Your task to perform on an android device: open sync settings in chrome Image 0: 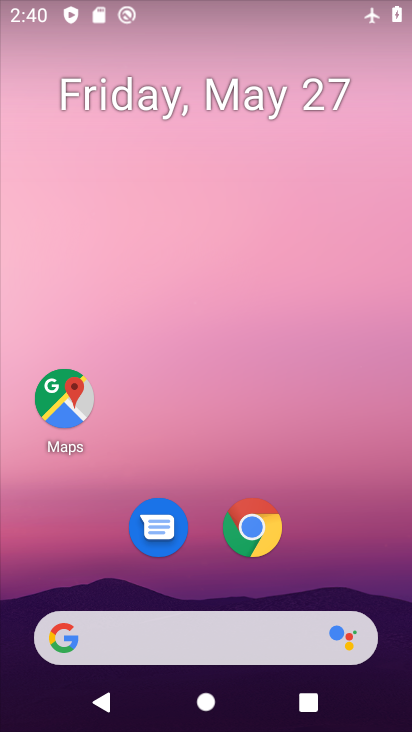
Step 0: click (241, 527)
Your task to perform on an android device: open sync settings in chrome Image 1: 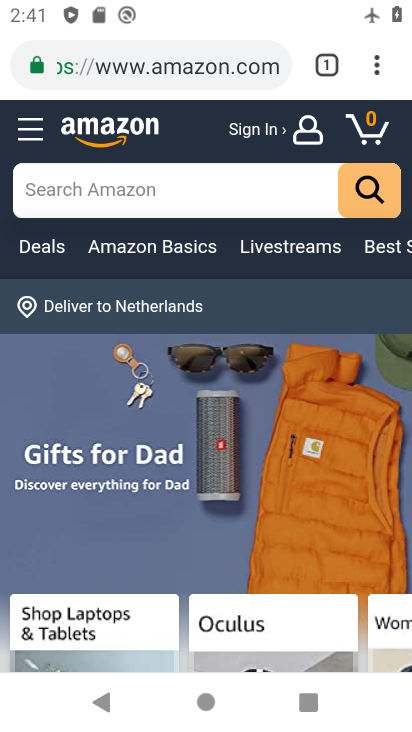
Step 1: click (372, 62)
Your task to perform on an android device: open sync settings in chrome Image 2: 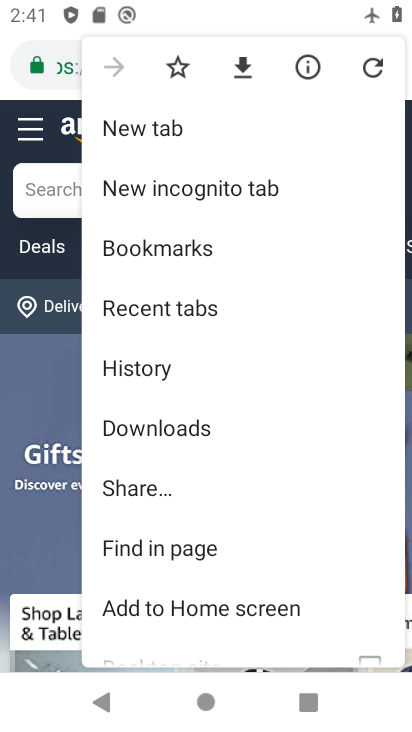
Step 2: drag from (229, 596) to (299, 55)
Your task to perform on an android device: open sync settings in chrome Image 3: 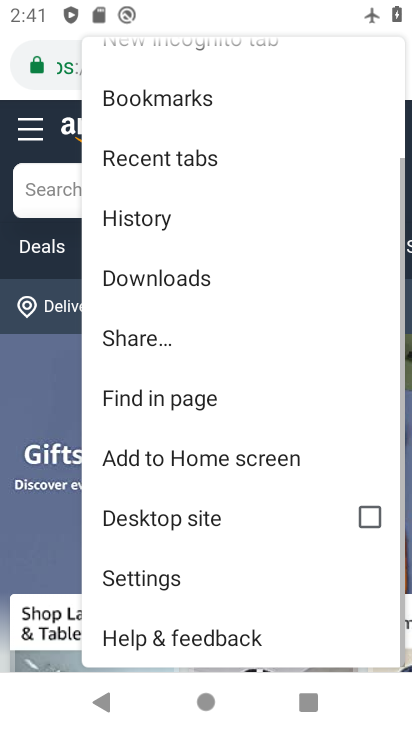
Step 3: click (203, 584)
Your task to perform on an android device: open sync settings in chrome Image 4: 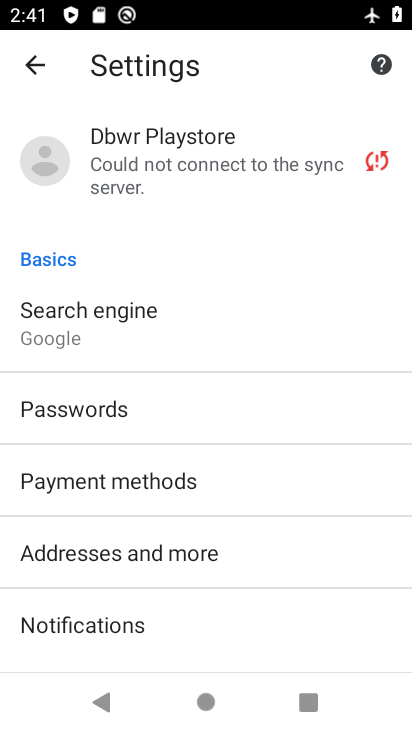
Step 4: click (240, 159)
Your task to perform on an android device: open sync settings in chrome Image 5: 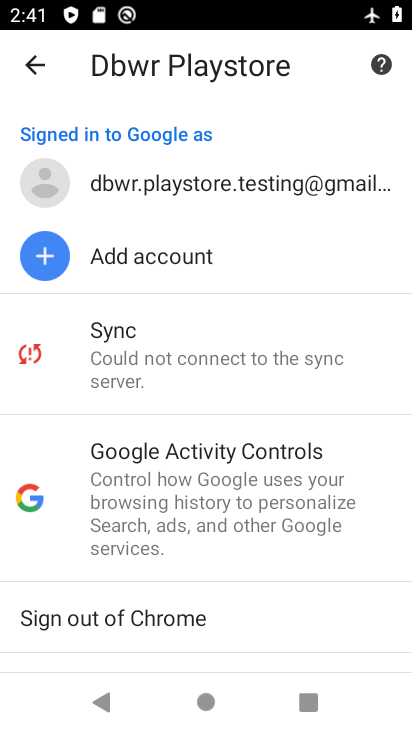
Step 5: task complete